Your task to perform on an android device: refresh tabs in the chrome app Image 0: 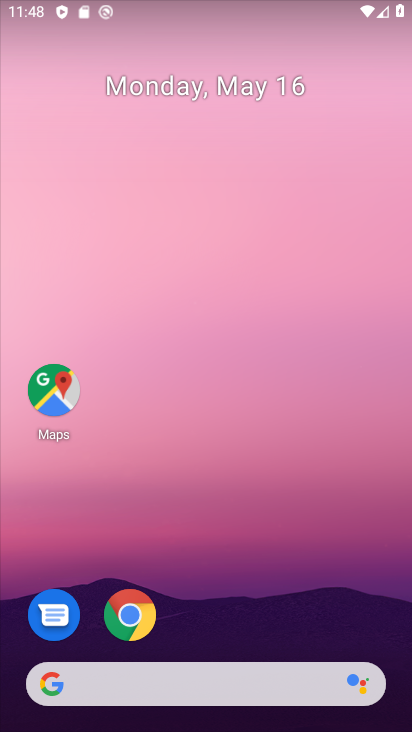
Step 0: click (127, 611)
Your task to perform on an android device: refresh tabs in the chrome app Image 1: 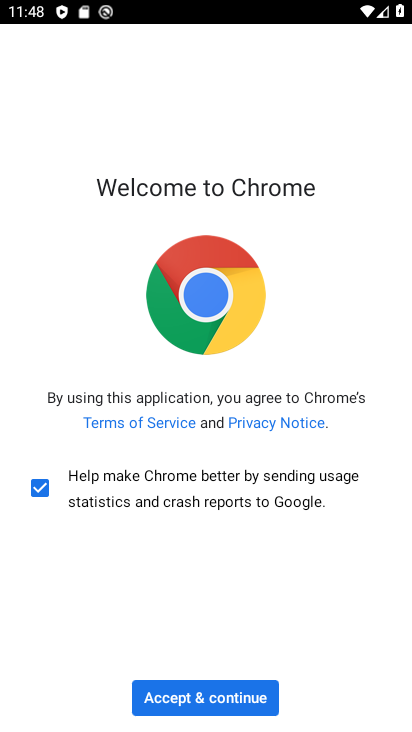
Step 1: click (231, 701)
Your task to perform on an android device: refresh tabs in the chrome app Image 2: 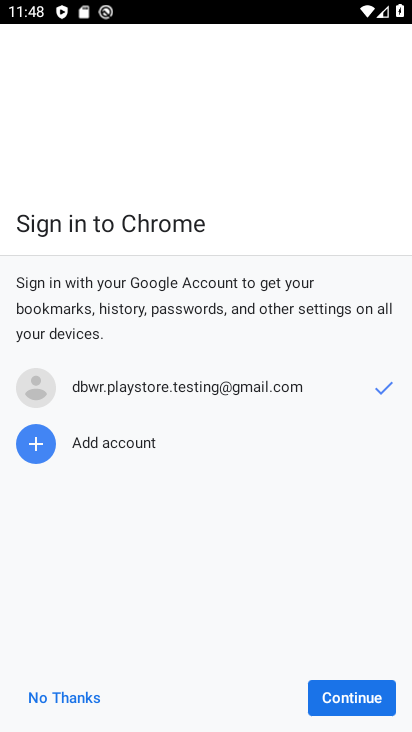
Step 2: click (336, 700)
Your task to perform on an android device: refresh tabs in the chrome app Image 3: 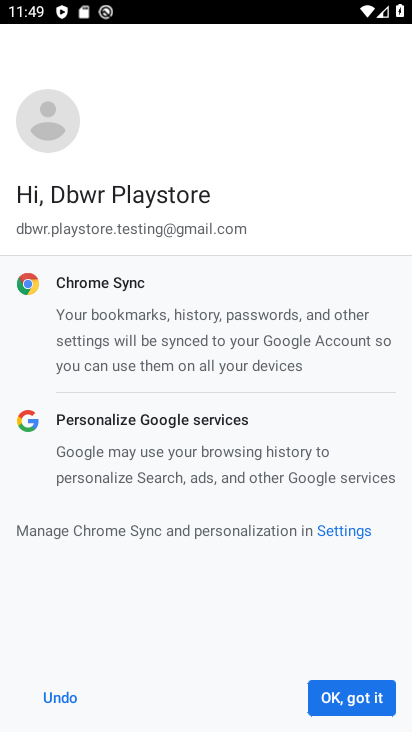
Step 3: click (336, 700)
Your task to perform on an android device: refresh tabs in the chrome app Image 4: 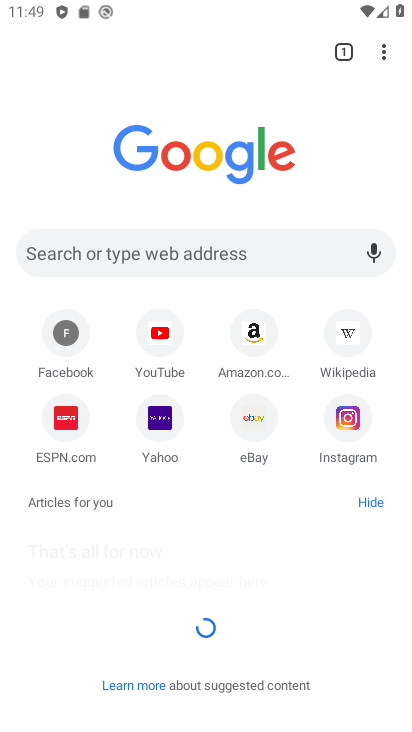
Step 4: click (380, 45)
Your task to perform on an android device: refresh tabs in the chrome app Image 5: 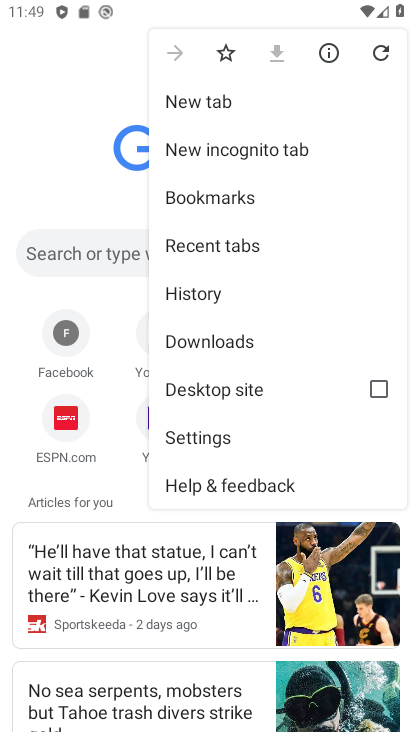
Step 5: click (390, 58)
Your task to perform on an android device: refresh tabs in the chrome app Image 6: 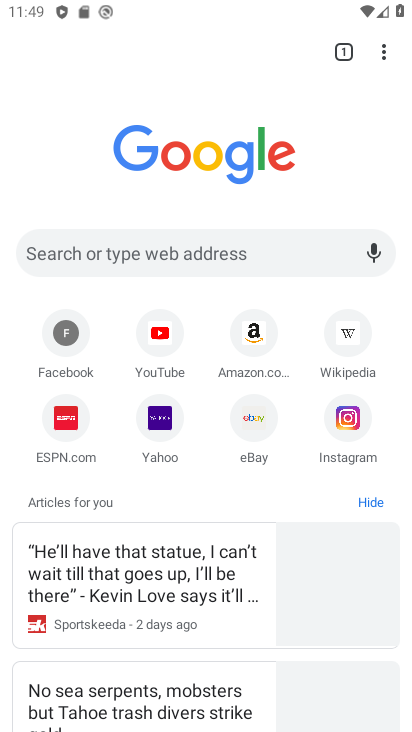
Step 6: click (381, 49)
Your task to perform on an android device: refresh tabs in the chrome app Image 7: 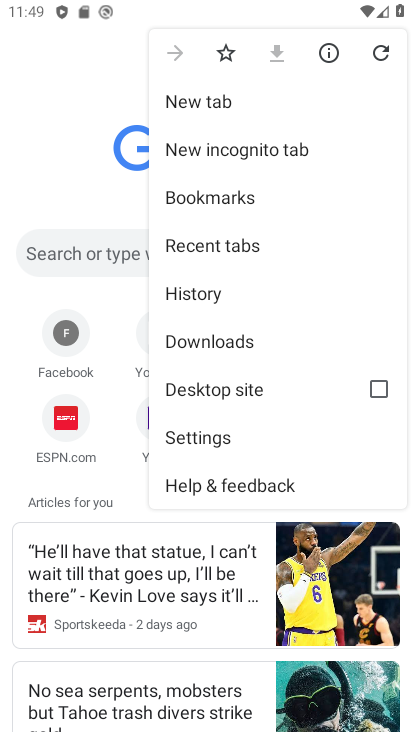
Step 7: task complete